Your task to perform on an android device: What's on my calendar today? Image 0: 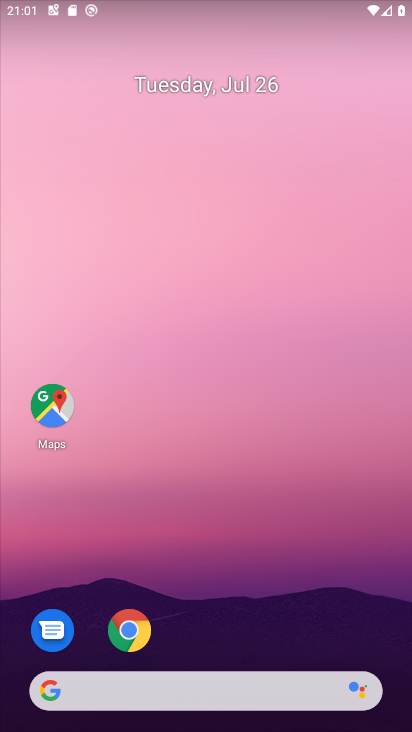
Step 0: drag from (401, 715) to (361, 174)
Your task to perform on an android device: What's on my calendar today? Image 1: 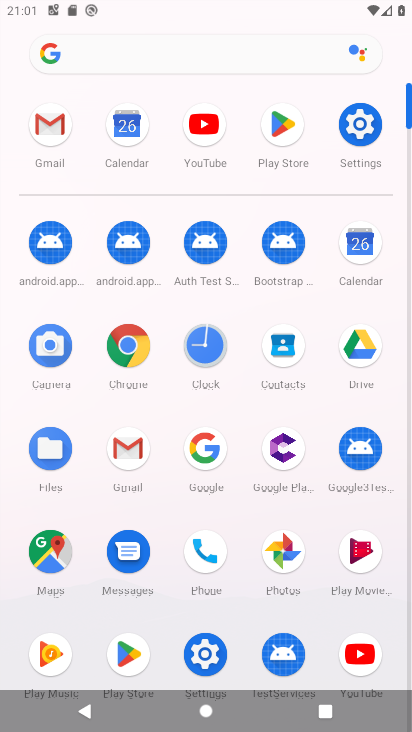
Step 1: click (362, 249)
Your task to perform on an android device: What's on my calendar today? Image 2: 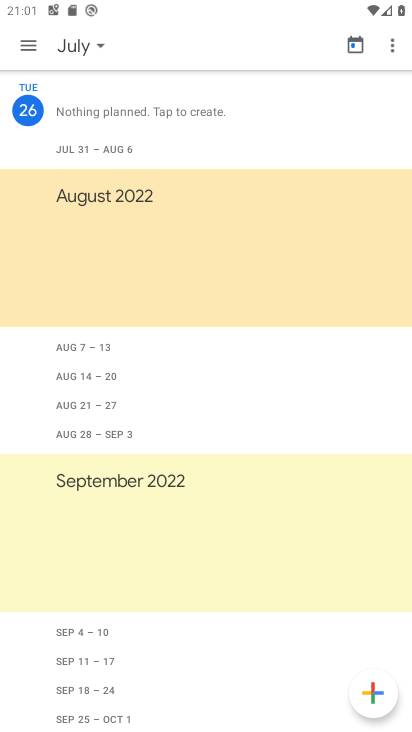
Step 2: task complete